Your task to perform on an android device: Check the settings for the Pandora app Image 0: 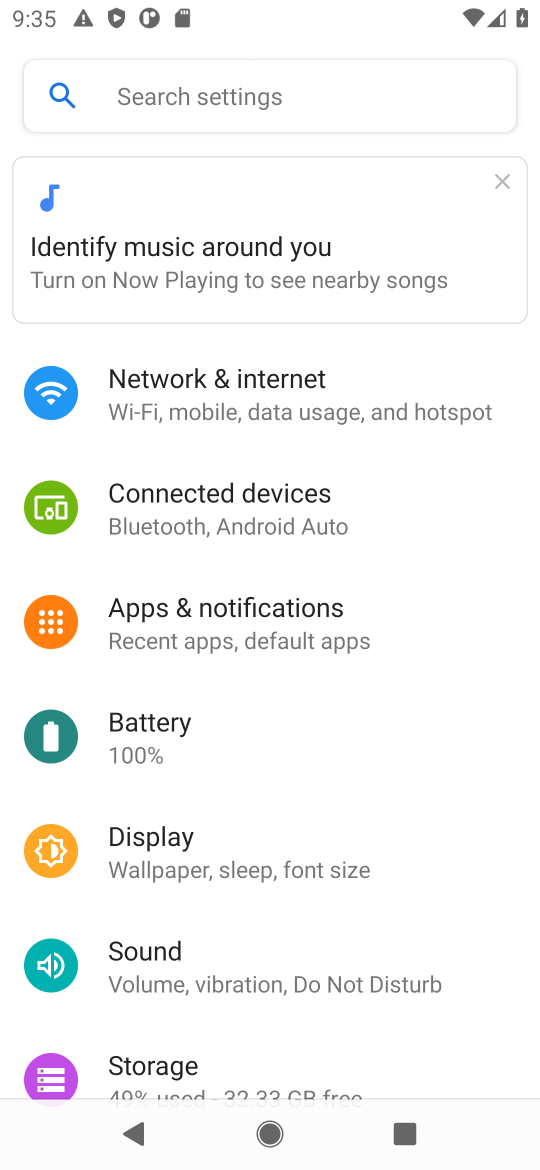
Step 0: press home button
Your task to perform on an android device: Check the settings for the Pandora app Image 1: 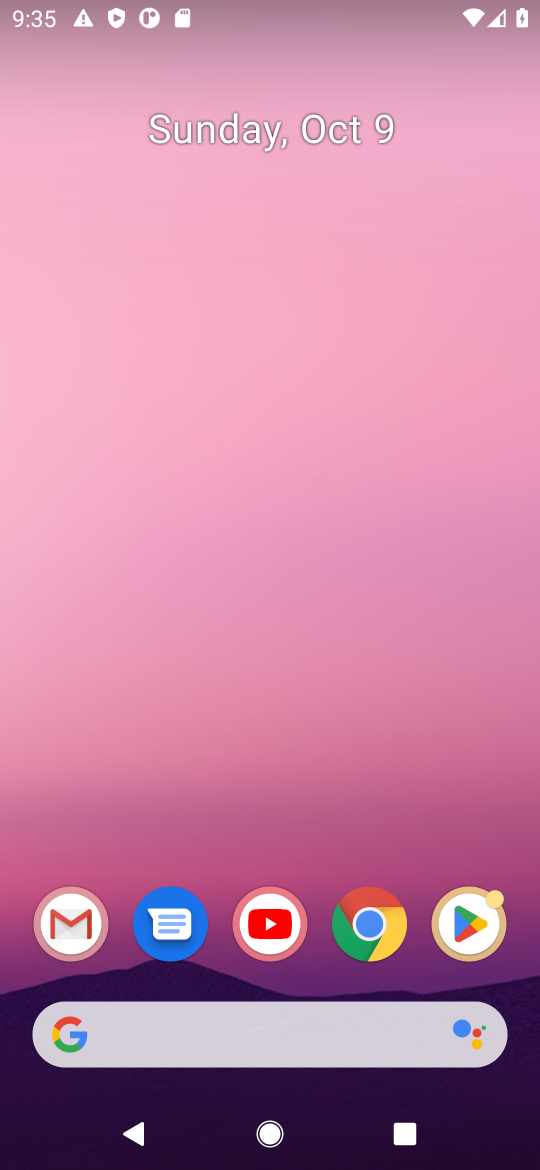
Step 1: task complete